Your task to perform on an android device: Open the phone app and click the voicemail tab. Image 0: 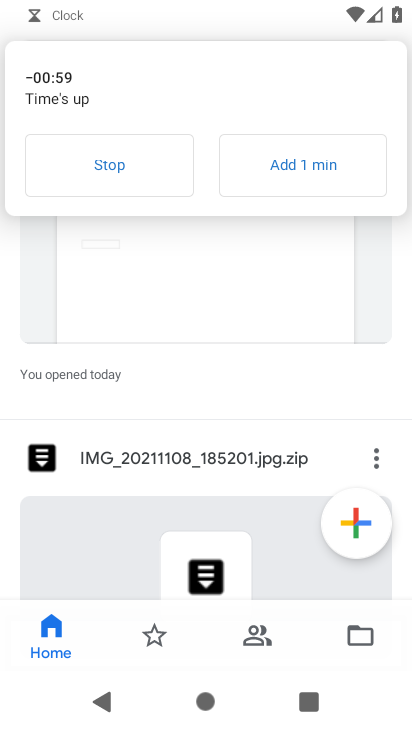
Step 0: press home button
Your task to perform on an android device: Open the phone app and click the voicemail tab. Image 1: 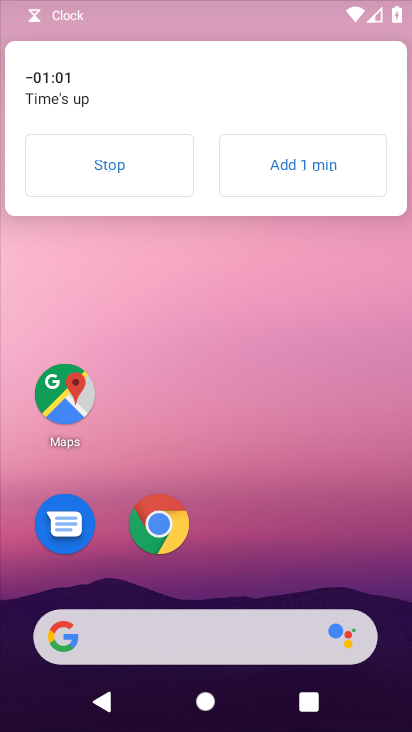
Step 1: drag from (258, 567) to (257, 62)
Your task to perform on an android device: Open the phone app and click the voicemail tab. Image 2: 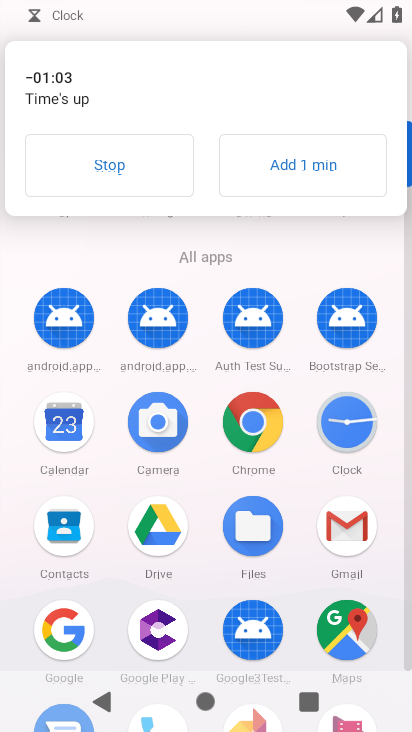
Step 2: drag from (294, 575) to (275, 292)
Your task to perform on an android device: Open the phone app and click the voicemail tab. Image 3: 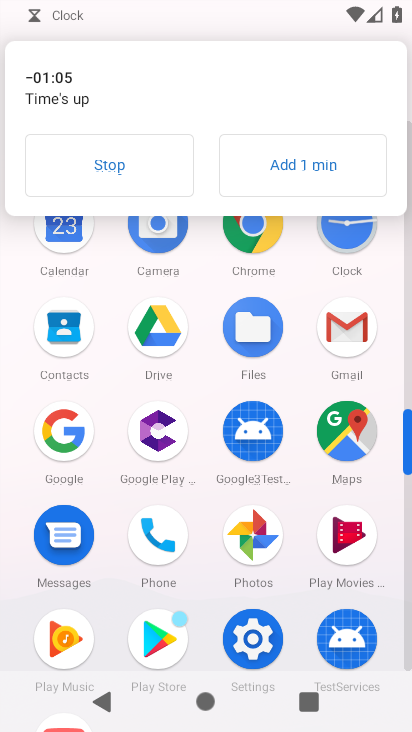
Step 3: click (147, 532)
Your task to perform on an android device: Open the phone app and click the voicemail tab. Image 4: 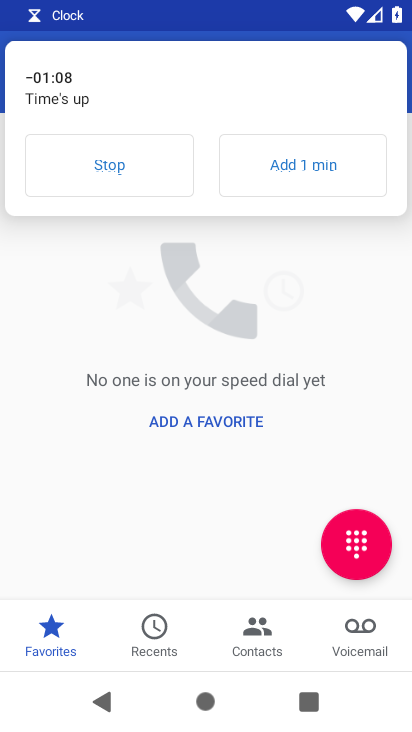
Step 4: click (346, 637)
Your task to perform on an android device: Open the phone app and click the voicemail tab. Image 5: 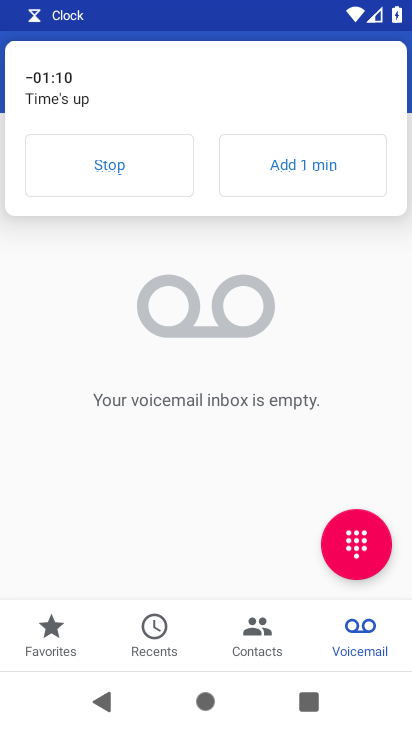
Step 5: task complete